Your task to perform on an android device: toggle improve location accuracy Image 0: 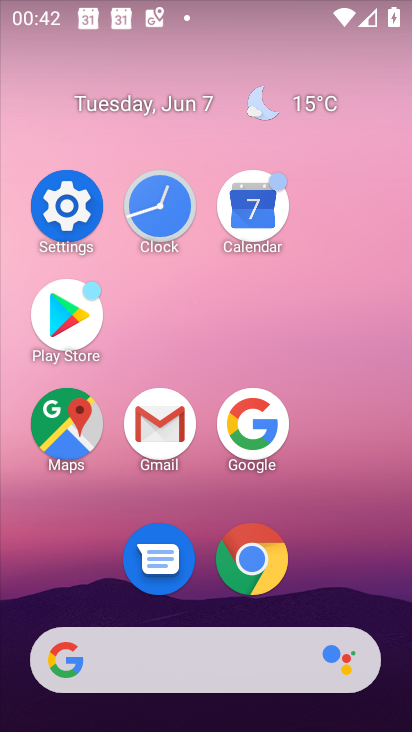
Step 0: click (79, 202)
Your task to perform on an android device: toggle improve location accuracy Image 1: 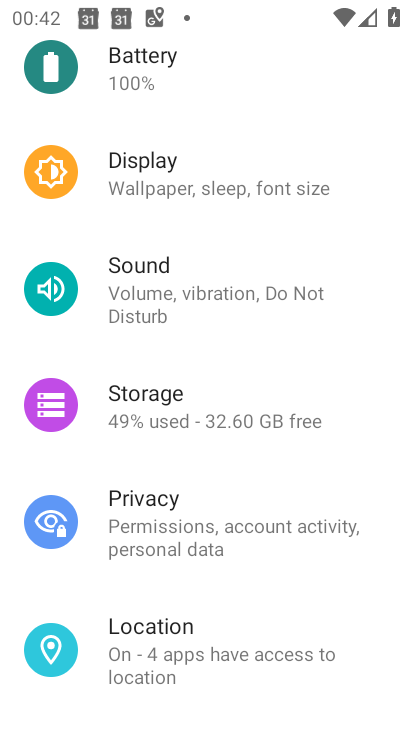
Step 1: click (228, 623)
Your task to perform on an android device: toggle improve location accuracy Image 2: 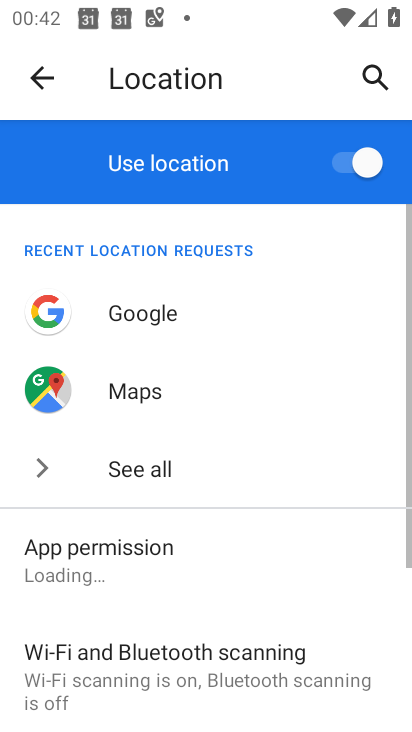
Step 2: drag from (228, 623) to (220, 262)
Your task to perform on an android device: toggle improve location accuracy Image 3: 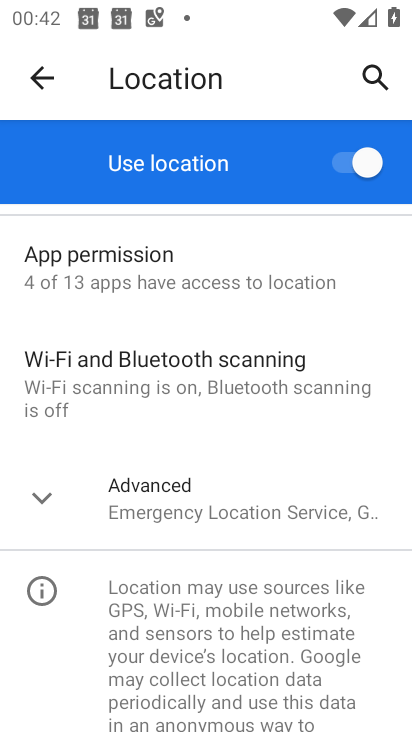
Step 3: click (167, 516)
Your task to perform on an android device: toggle improve location accuracy Image 4: 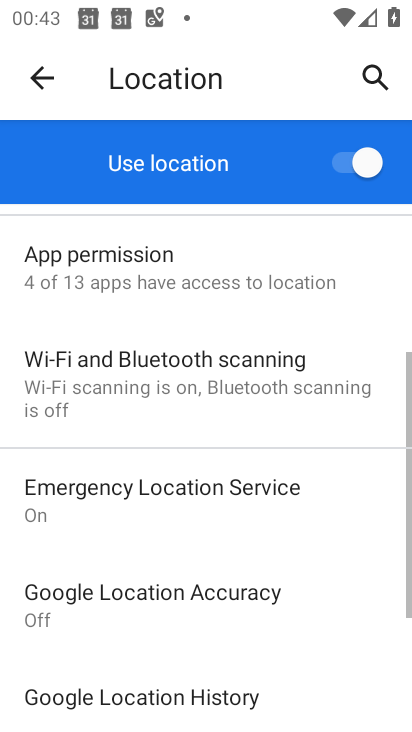
Step 4: drag from (173, 520) to (215, 235)
Your task to perform on an android device: toggle improve location accuracy Image 5: 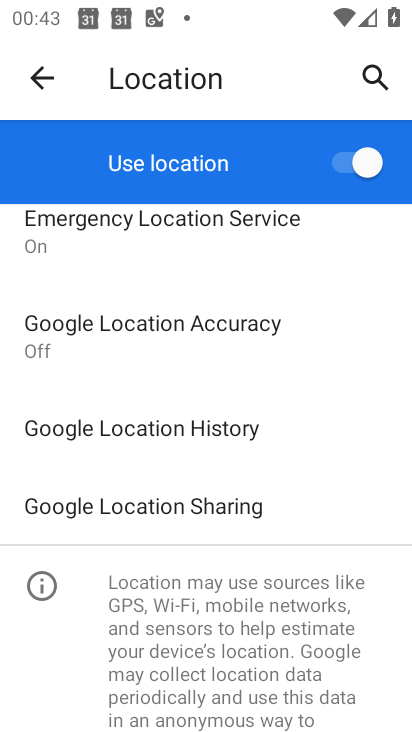
Step 5: click (236, 350)
Your task to perform on an android device: toggle improve location accuracy Image 6: 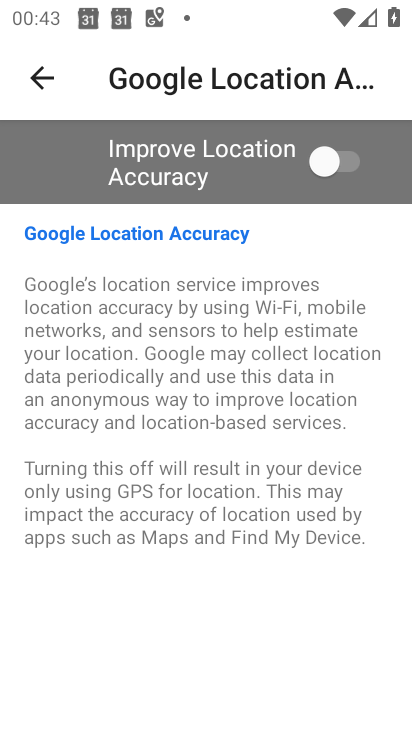
Step 6: click (332, 161)
Your task to perform on an android device: toggle improve location accuracy Image 7: 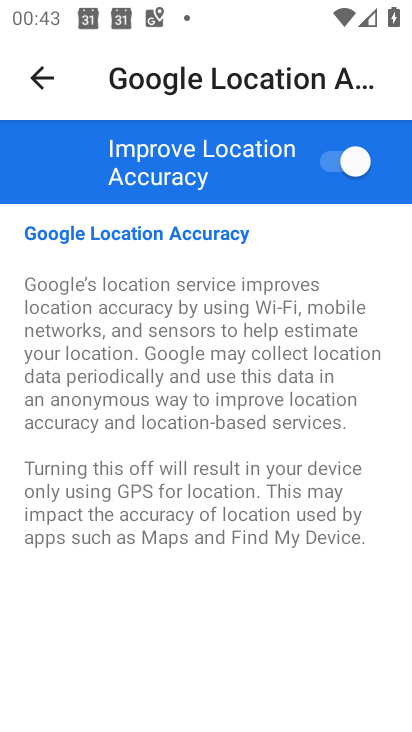
Step 7: task complete